Your task to perform on an android device: turn off notifications in google photos Image 0: 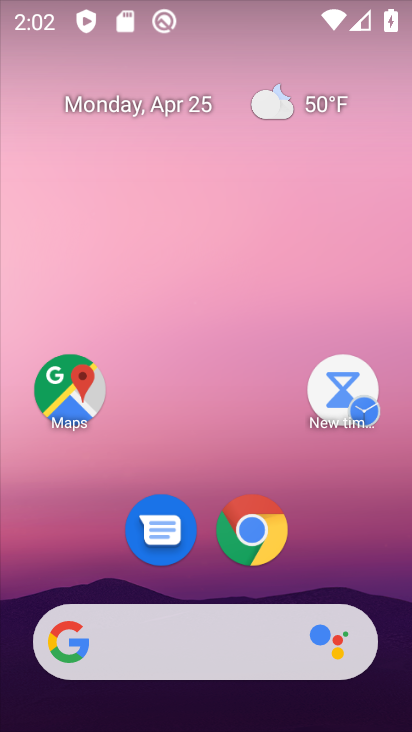
Step 0: drag from (232, 541) to (181, 0)
Your task to perform on an android device: turn off notifications in google photos Image 1: 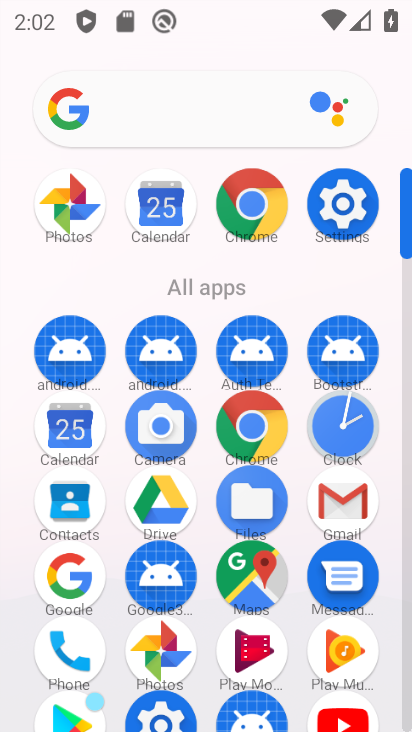
Step 1: click (147, 644)
Your task to perform on an android device: turn off notifications in google photos Image 2: 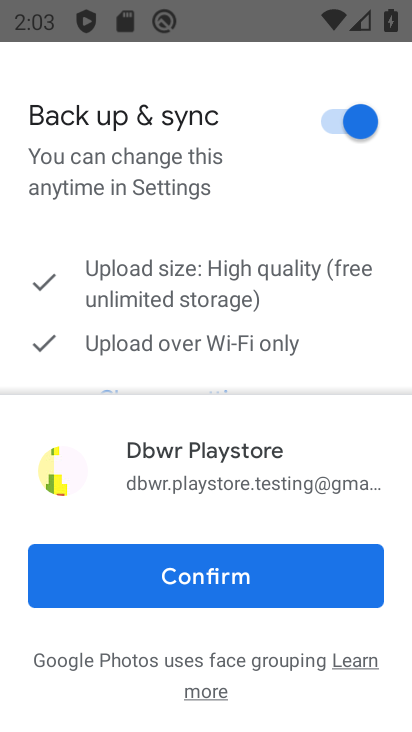
Step 2: click (235, 573)
Your task to perform on an android device: turn off notifications in google photos Image 3: 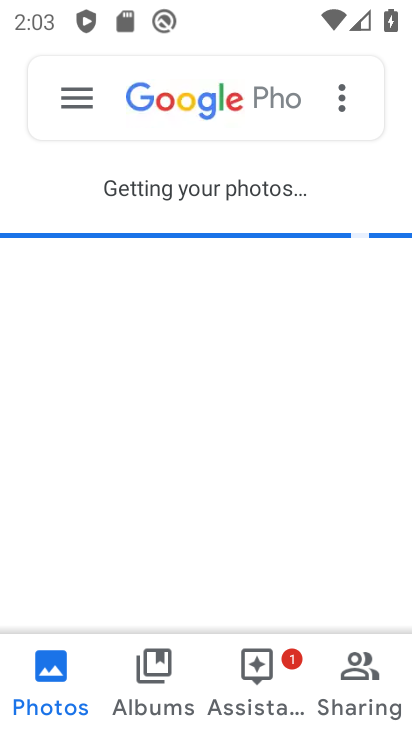
Step 3: click (64, 80)
Your task to perform on an android device: turn off notifications in google photos Image 4: 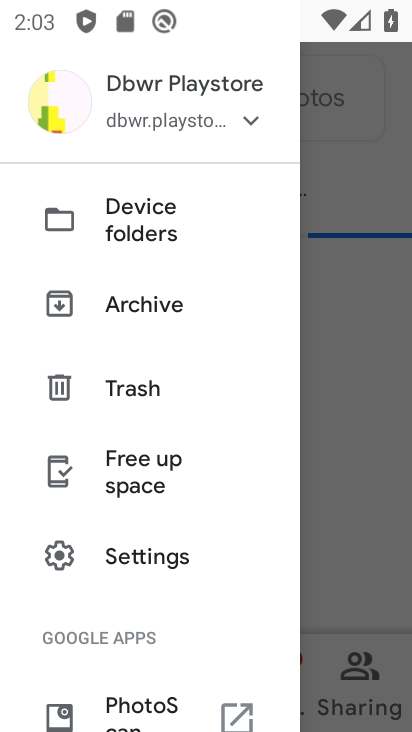
Step 4: click (134, 543)
Your task to perform on an android device: turn off notifications in google photos Image 5: 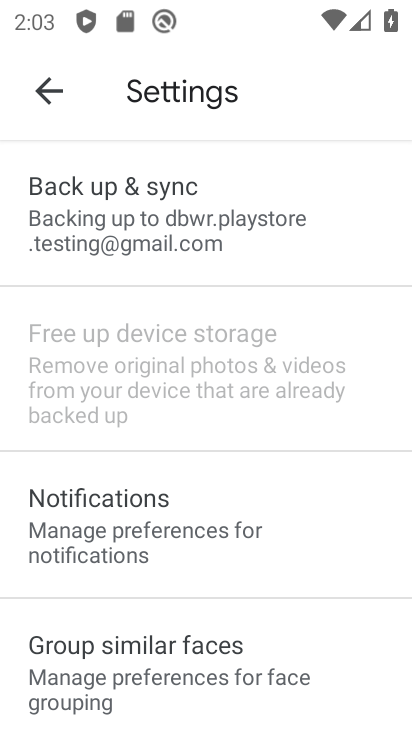
Step 5: click (130, 519)
Your task to perform on an android device: turn off notifications in google photos Image 6: 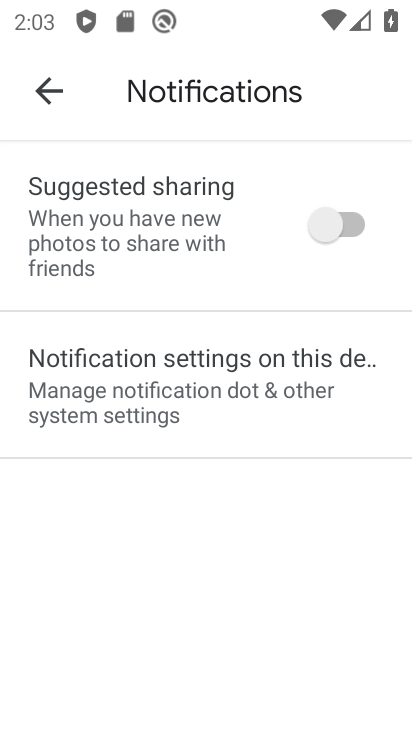
Step 6: click (314, 369)
Your task to perform on an android device: turn off notifications in google photos Image 7: 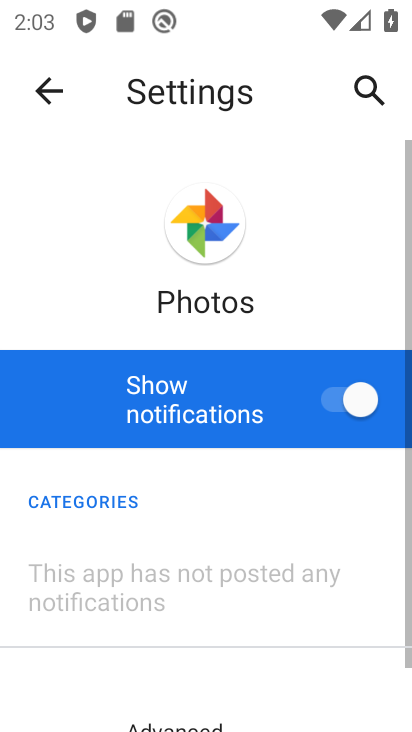
Step 7: click (346, 386)
Your task to perform on an android device: turn off notifications in google photos Image 8: 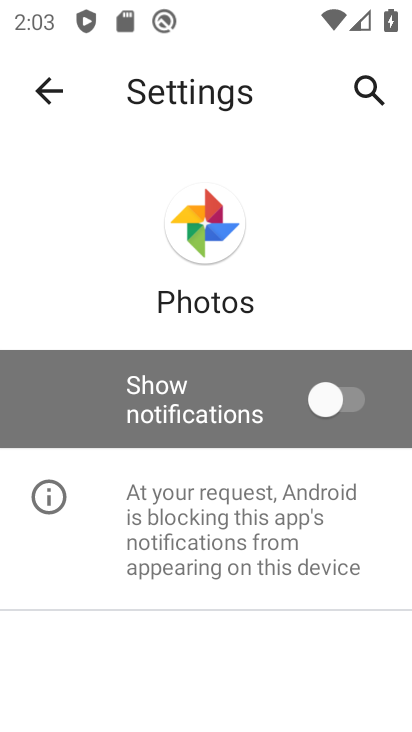
Step 8: task complete